Your task to perform on an android device: turn off wifi Image 0: 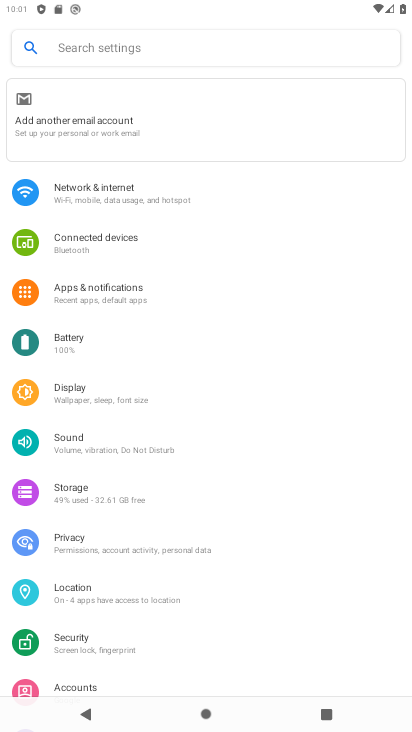
Step 0: click (72, 184)
Your task to perform on an android device: turn off wifi Image 1: 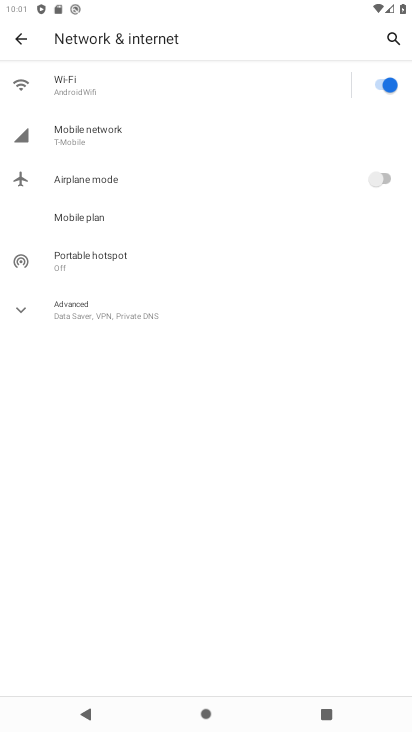
Step 1: click (377, 74)
Your task to perform on an android device: turn off wifi Image 2: 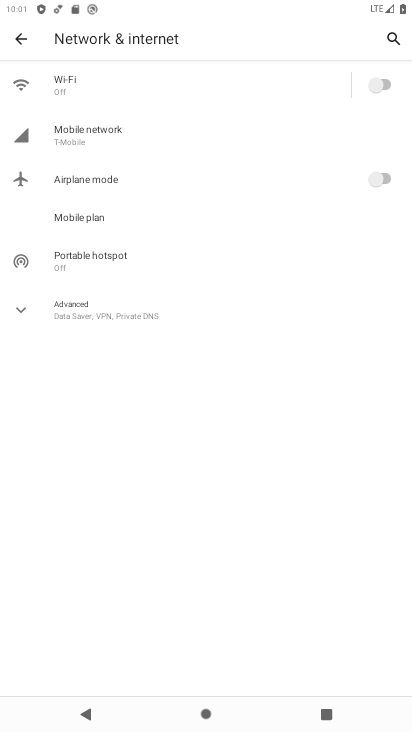
Step 2: task complete